Your task to perform on an android device: turn on the 24-hour format for clock Image 0: 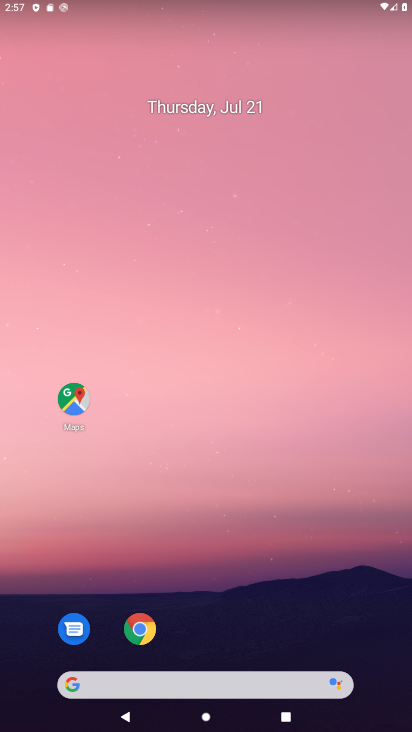
Step 0: drag from (296, 562) to (204, 203)
Your task to perform on an android device: turn on the 24-hour format for clock Image 1: 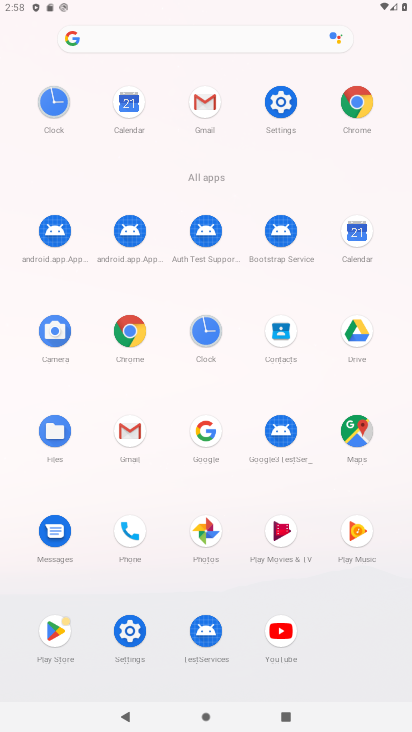
Step 1: click (119, 633)
Your task to perform on an android device: turn on the 24-hour format for clock Image 2: 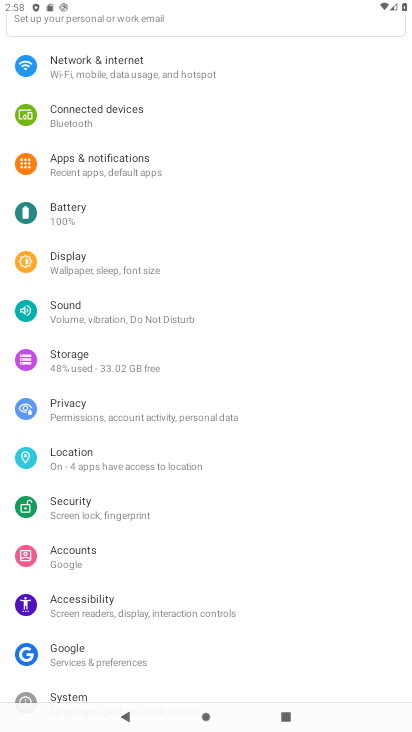
Step 2: press home button
Your task to perform on an android device: turn on the 24-hour format for clock Image 3: 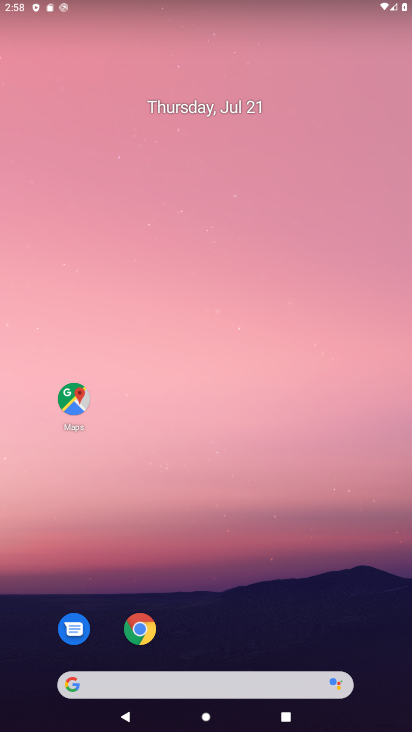
Step 3: drag from (309, 547) to (275, 46)
Your task to perform on an android device: turn on the 24-hour format for clock Image 4: 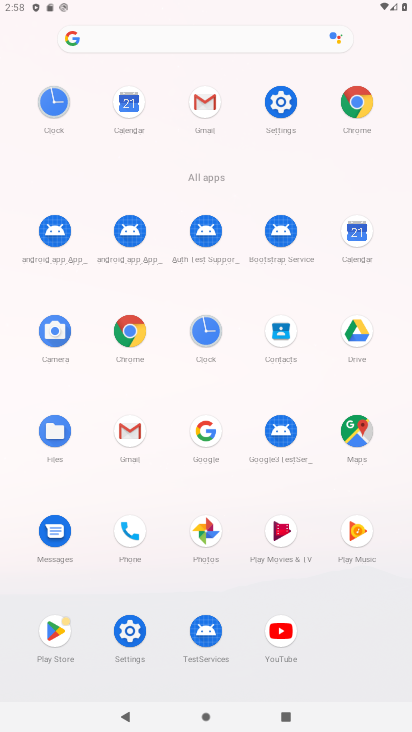
Step 4: click (189, 340)
Your task to perform on an android device: turn on the 24-hour format for clock Image 5: 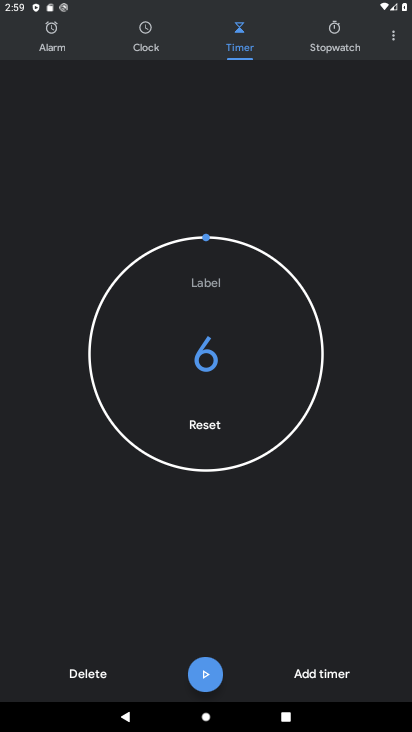
Step 5: click (386, 17)
Your task to perform on an android device: turn on the 24-hour format for clock Image 6: 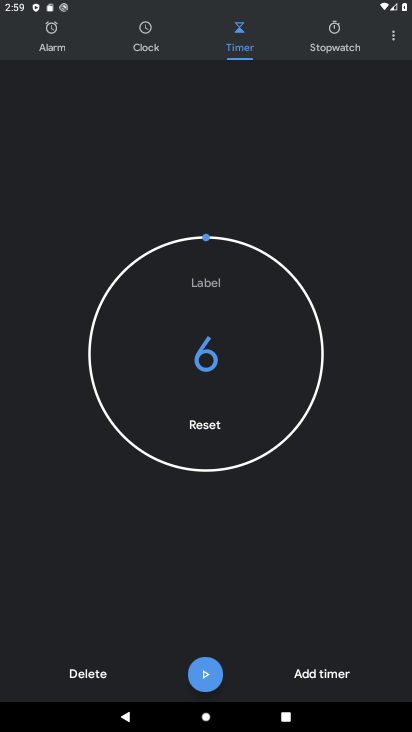
Step 6: click (390, 38)
Your task to perform on an android device: turn on the 24-hour format for clock Image 7: 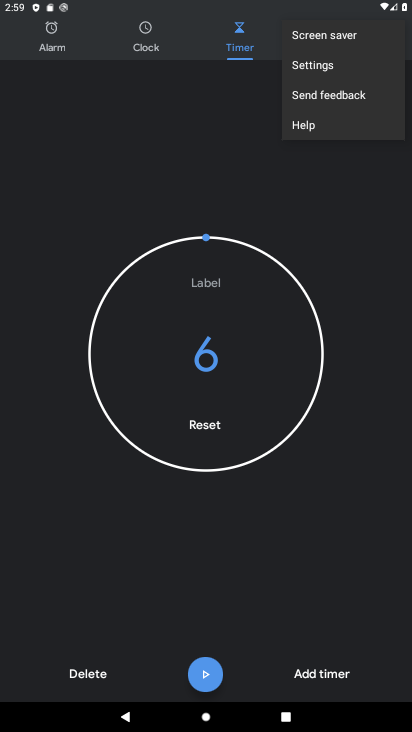
Step 7: click (313, 68)
Your task to perform on an android device: turn on the 24-hour format for clock Image 8: 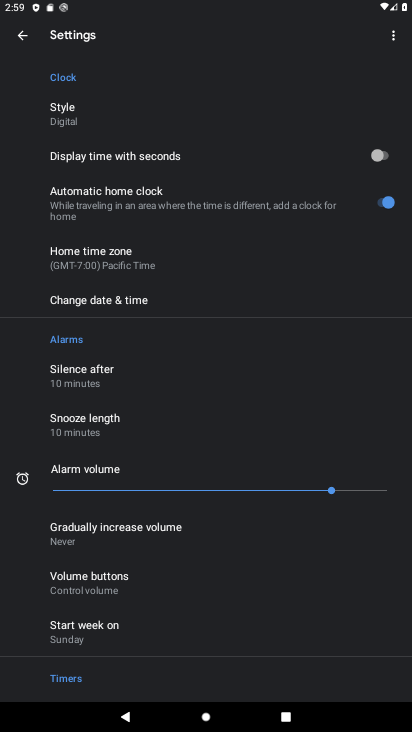
Step 8: click (93, 308)
Your task to perform on an android device: turn on the 24-hour format for clock Image 9: 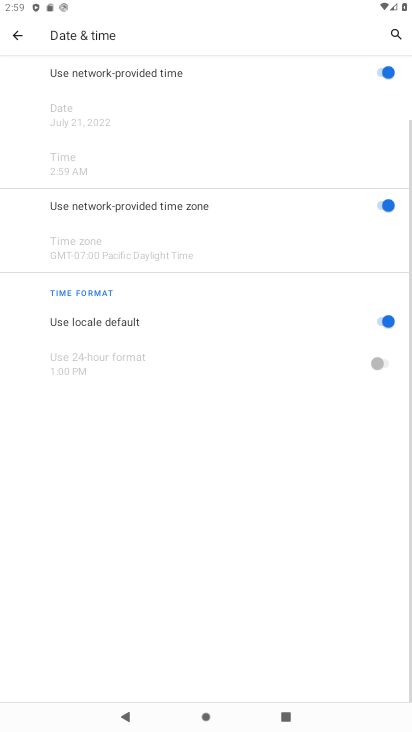
Step 9: click (174, 319)
Your task to perform on an android device: turn on the 24-hour format for clock Image 10: 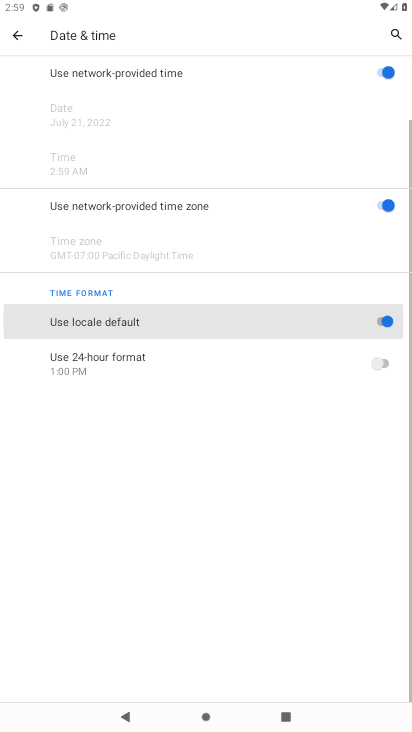
Step 10: click (166, 368)
Your task to perform on an android device: turn on the 24-hour format for clock Image 11: 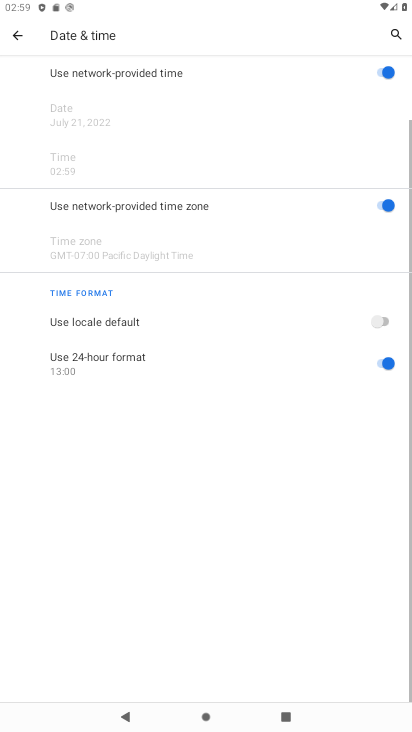
Step 11: task complete